Your task to perform on an android device: Go to calendar. Show me events next week Image 0: 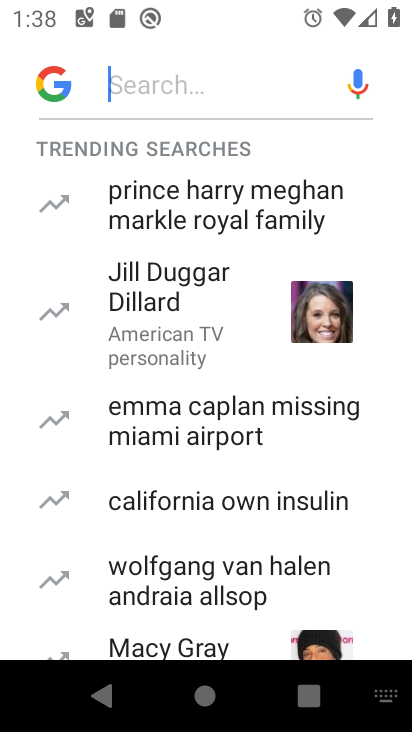
Step 0: press home button
Your task to perform on an android device: Go to calendar. Show me events next week Image 1: 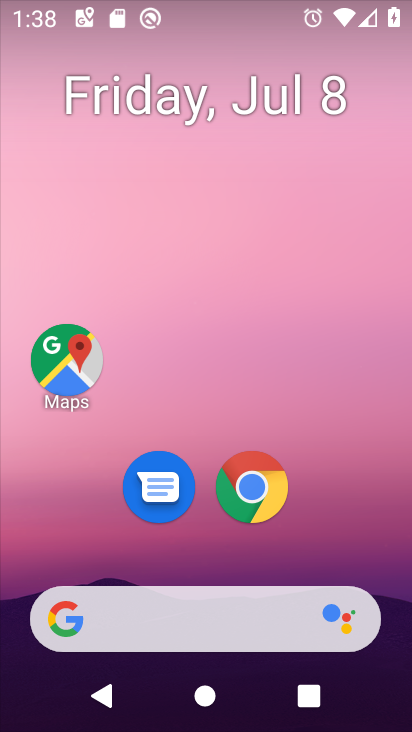
Step 1: drag from (348, 541) to (403, 393)
Your task to perform on an android device: Go to calendar. Show me events next week Image 2: 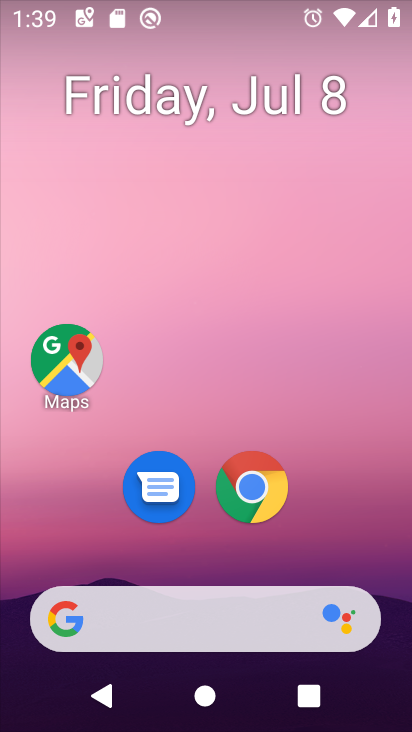
Step 2: drag from (265, 212) to (293, 38)
Your task to perform on an android device: Go to calendar. Show me events next week Image 3: 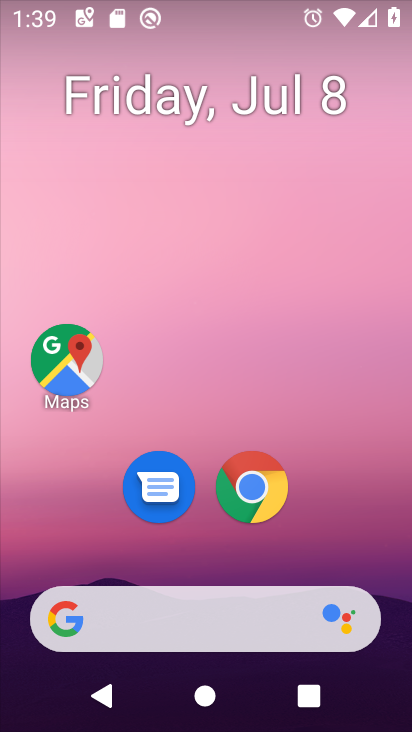
Step 3: drag from (300, 385) to (328, 2)
Your task to perform on an android device: Go to calendar. Show me events next week Image 4: 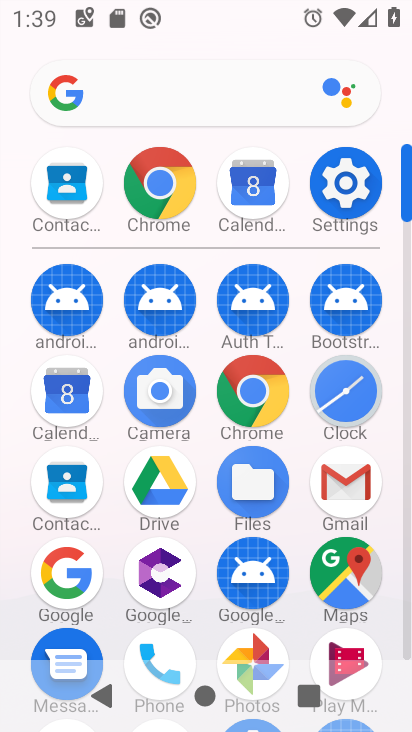
Step 4: click (58, 410)
Your task to perform on an android device: Go to calendar. Show me events next week Image 5: 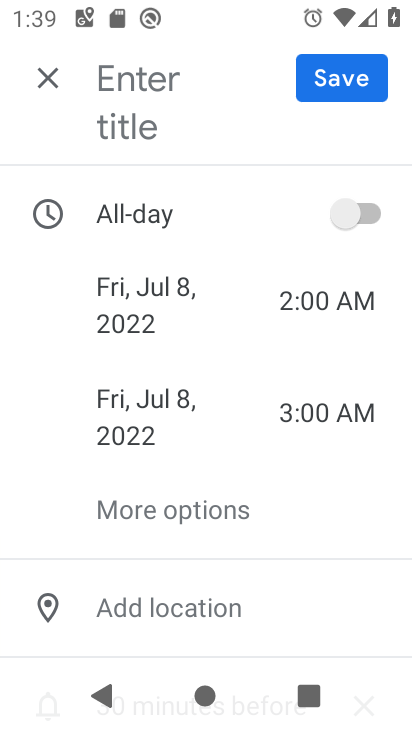
Step 5: press back button
Your task to perform on an android device: Go to calendar. Show me events next week Image 6: 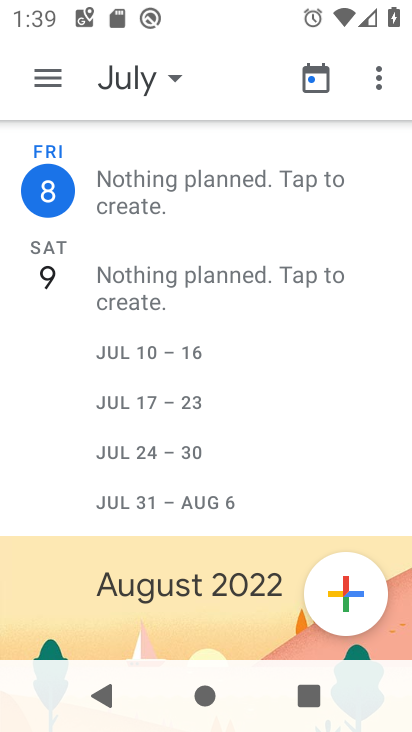
Step 6: click (177, 89)
Your task to perform on an android device: Go to calendar. Show me events next week Image 7: 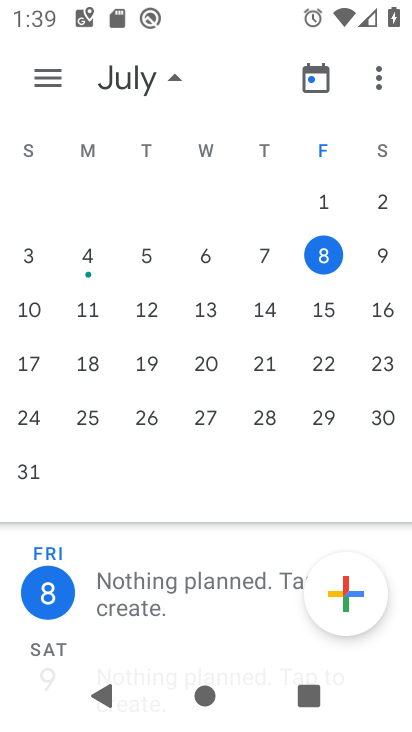
Step 7: click (89, 313)
Your task to perform on an android device: Go to calendar. Show me events next week Image 8: 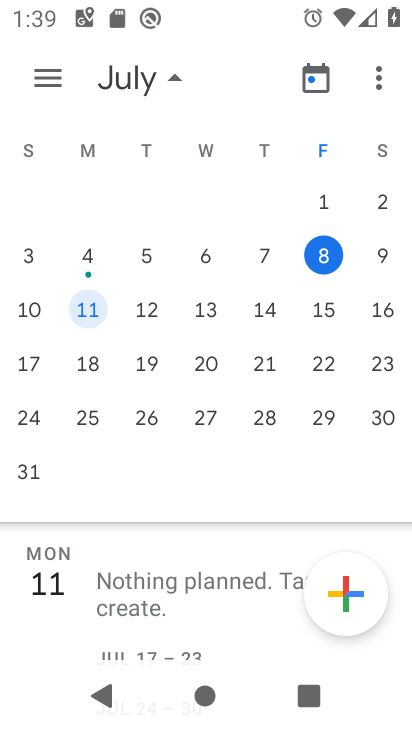
Step 8: task complete